Your task to perform on an android device: Open Amazon Image 0: 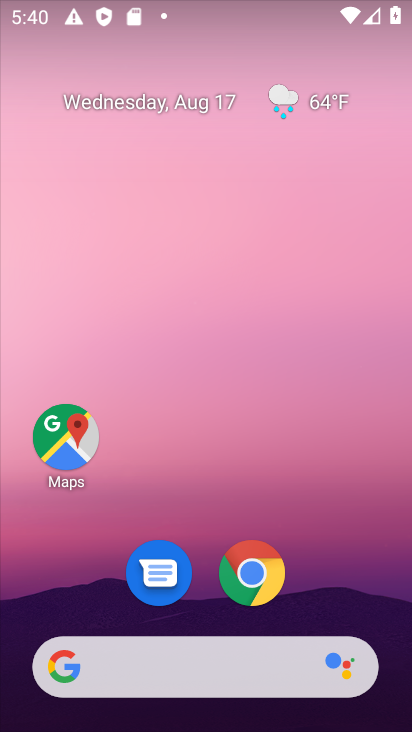
Step 0: drag from (227, 576) to (367, 75)
Your task to perform on an android device: Open Amazon Image 1: 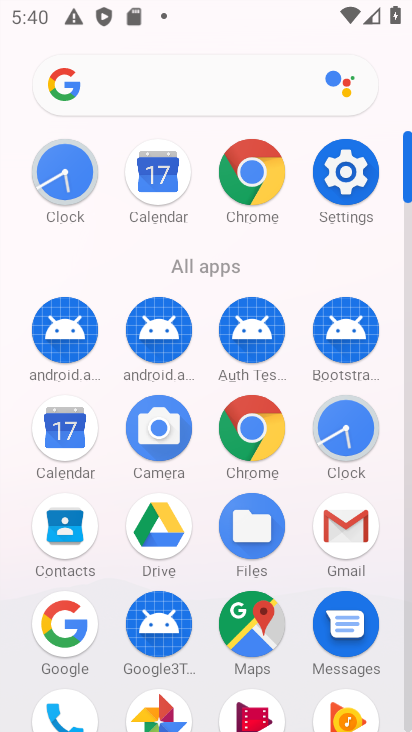
Step 1: click (258, 185)
Your task to perform on an android device: Open Amazon Image 2: 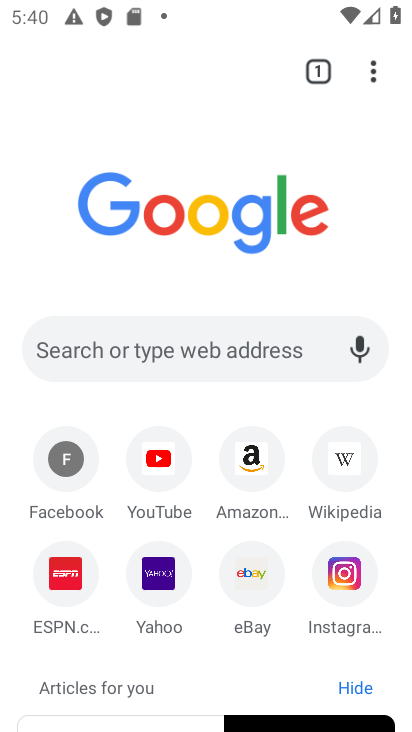
Step 2: click (256, 451)
Your task to perform on an android device: Open Amazon Image 3: 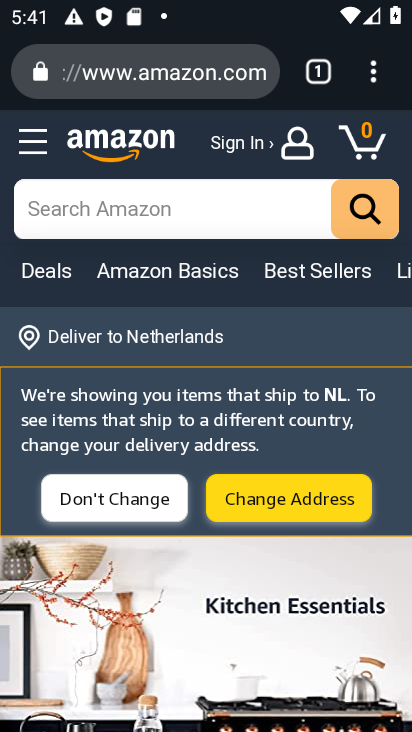
Step 3: task complete